Your task to perform on an android device: check out phone information Image 0: 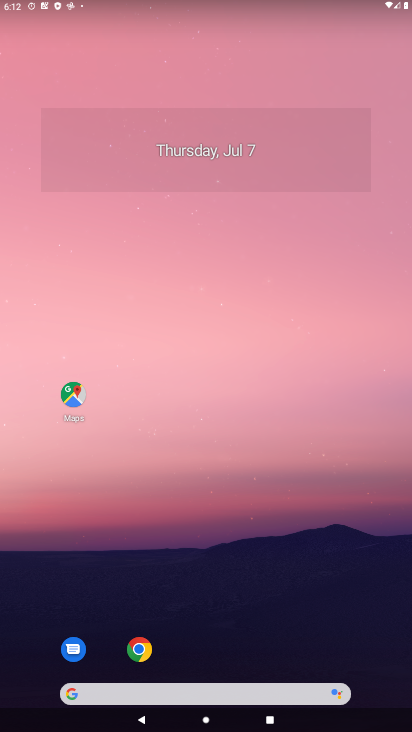
Step 0: drag from (374, 640) to (330, 22)
Your task to perform on an android device: check out phone information Image 1: 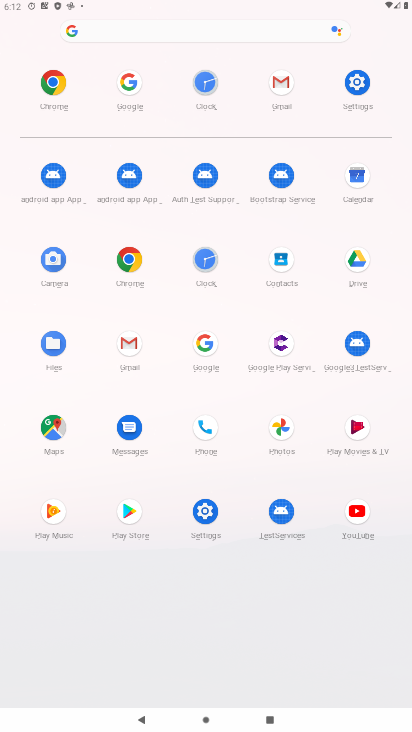
Step 1: click (360, 103)
Your task to perform on an android device: check out phone information Image 2: 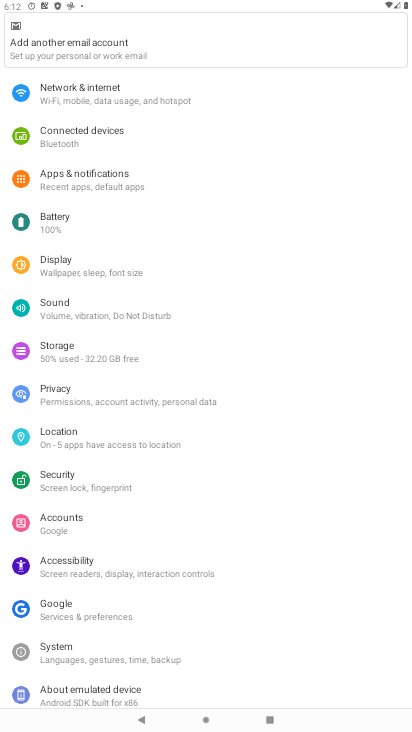
Step 2: click (86, 692)
Your task to perform on an android device: check out phone information Image 3: 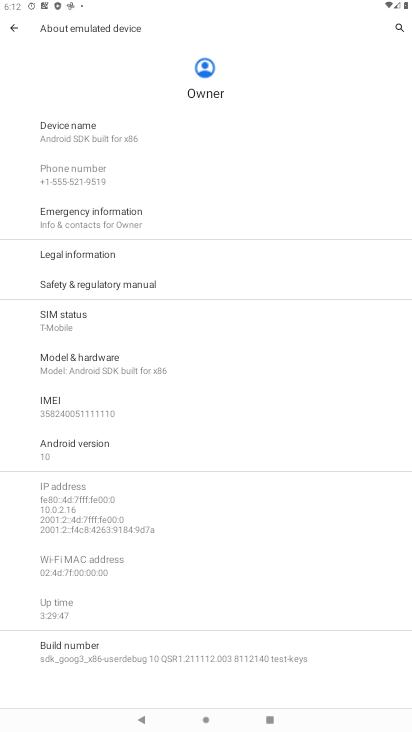
Step 3: drag from (85, 142) to (130, 534)
Your task to perform on an android device: check out phone information Image 4: 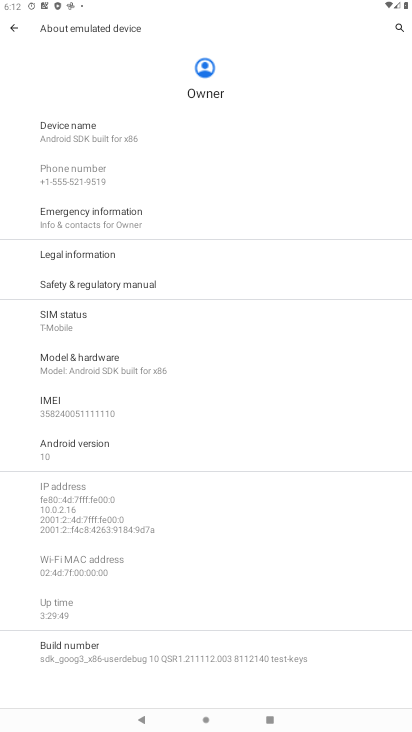
Step 4: click (144, 263)
Your task to perform on an android device: check out phone information Image 5: 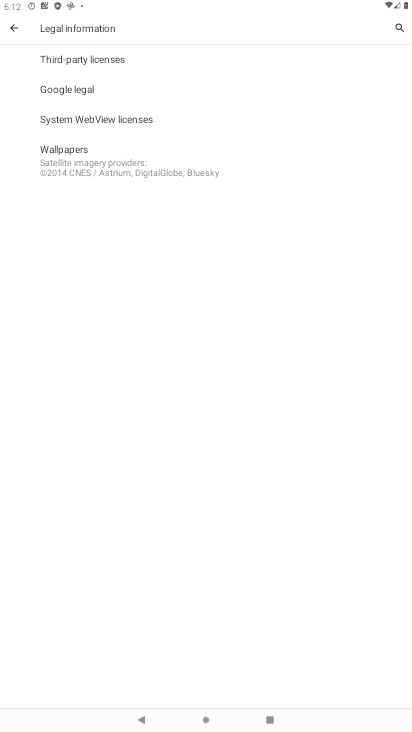
Step 5: task complete